Your task to perform on an android device: see tabs open on other devices in the chrome app Image 0: 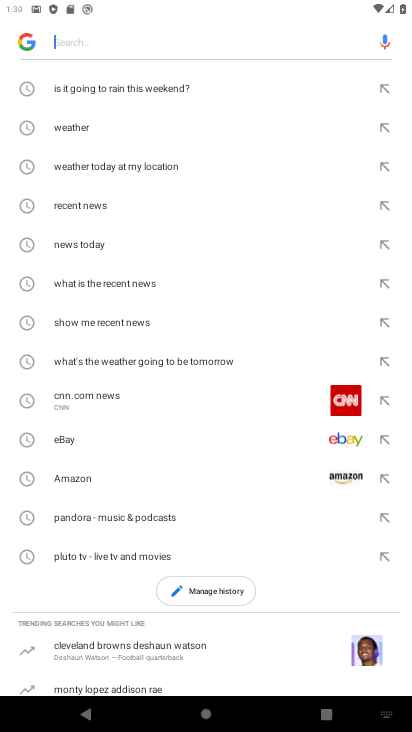
Step 0: press home button
Your task to perform on an android device: see tabs open on other devices in the chrome app Image 1: 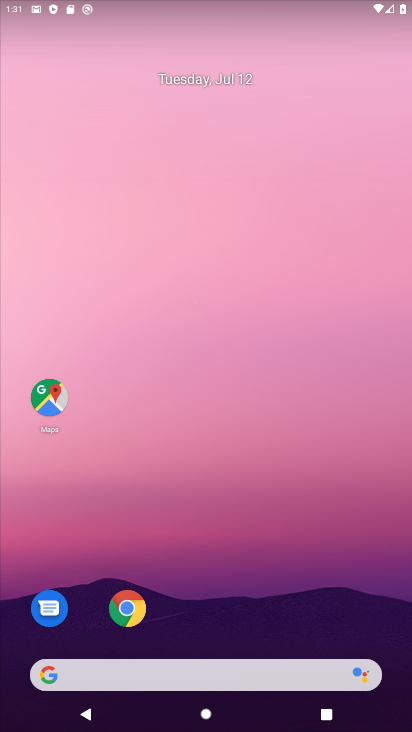
Step 1: click (128, 613)
Your task to perform on an android device: see tabs open on other devices in the chrome app Image 2: 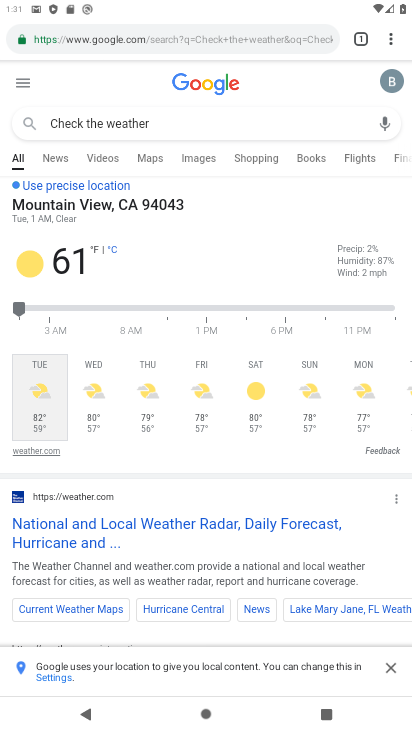
Step 2: click (397, 40)
Your task to perform on an android device: see tabs open on other devices in the chrome app Image 3: 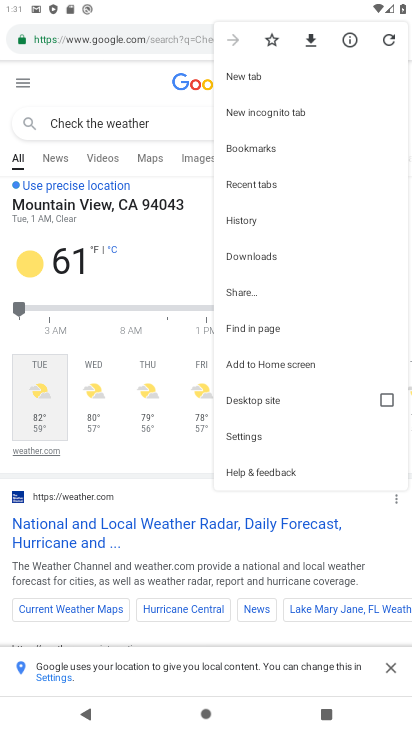
Step 3: click (274, 182)
Your task to perform on an android device: see tabs open on other devices in the chrome app Image 4: 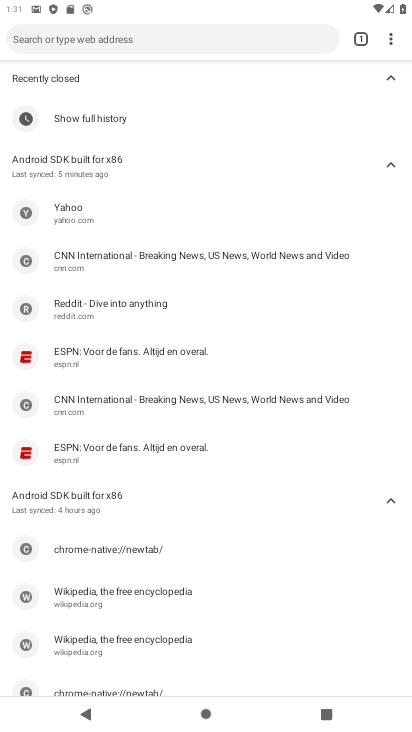
Step 4: task complete